Your task to perform on an android device: Go to Wikipedia Image 0: 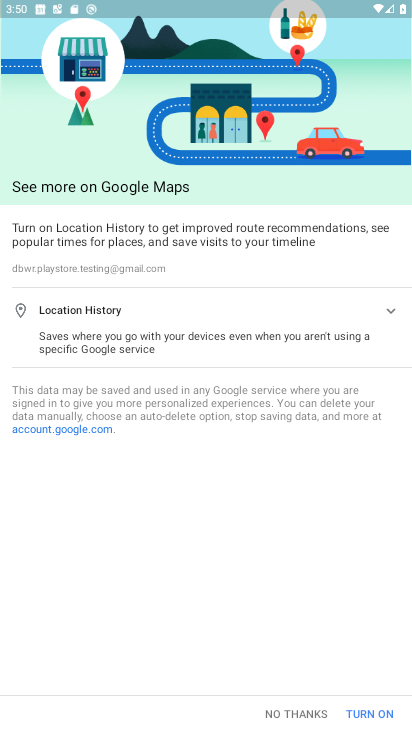
Step 0: press home button
Your task to perform on an android device: Go to Wikipedia Image 1: 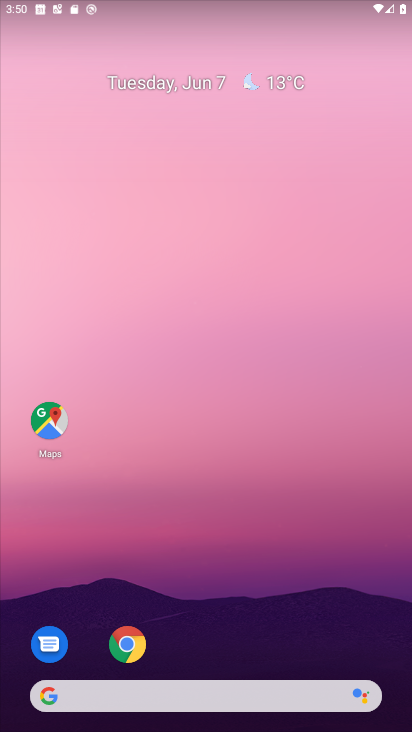
Step 1: drag from (274, 608) to (344, 214)
Your task to perform on an android device: Go to Wikipedia Image 2: 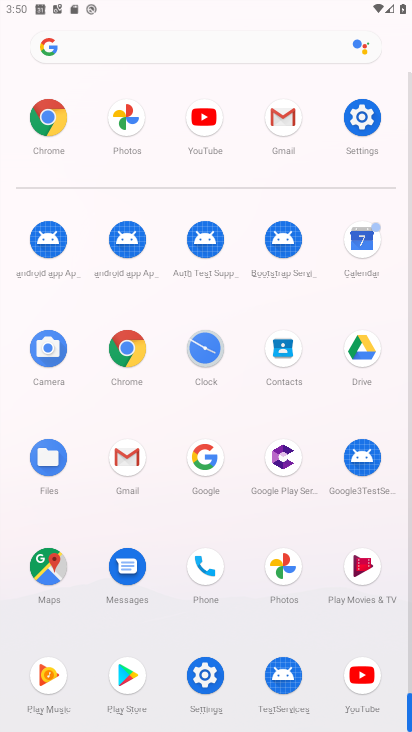
Step 2: click (133, 345)
Your task to perform on an android device: Go to Wikipedia Image 3: 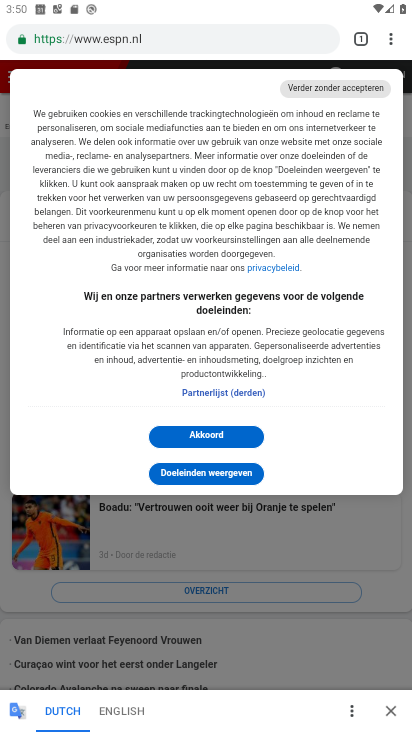
Step 3: click (222, 38)
Your task to perform on an android device: Go to Wikipedia Image 4: 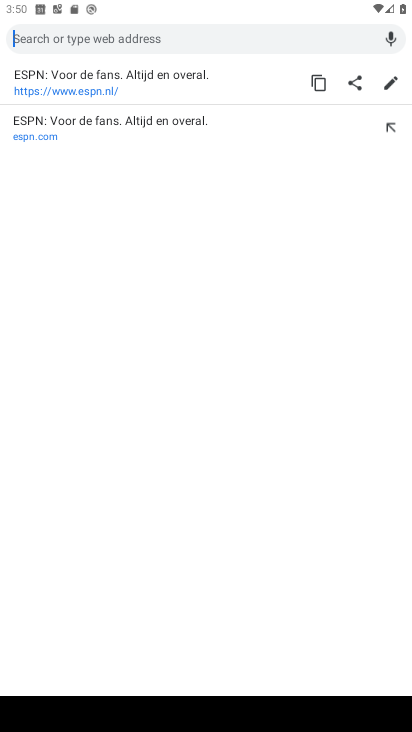
Step 4: type "wikip;edia"
Your task to perform on an android device: Go to Wikipedia Image 5: 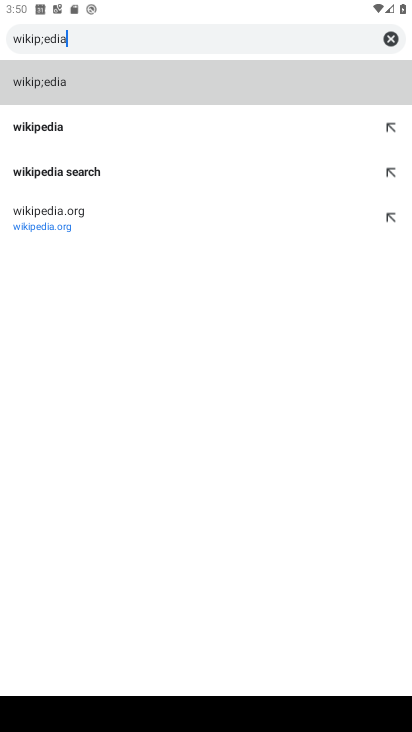
Step 5: click (111, 82)
Your task to perform on an android device: Go to Wikipedia Image 6: 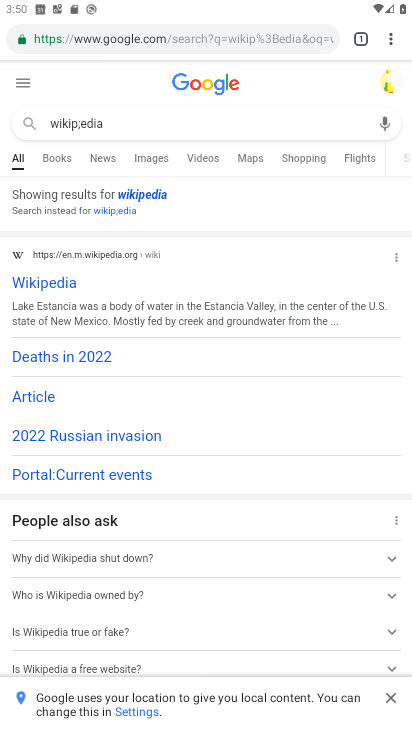
Step 6: click (66, 282)
Your task to perform on an android device: Go to Wikipedia Image 7: 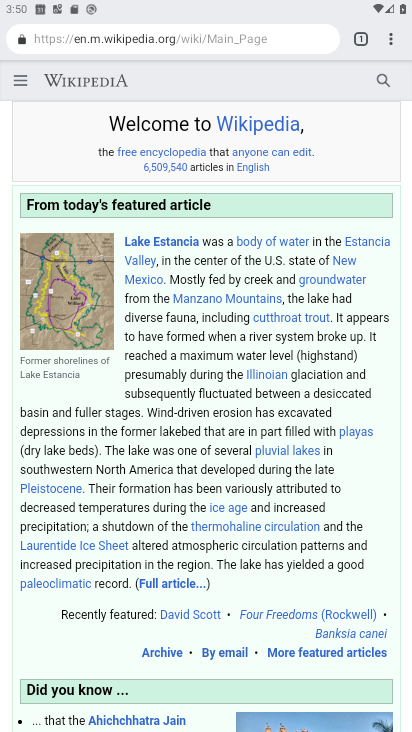
Step 7: task complete